Your task to perform on an android device: change the clock display to show seconds Image 0: 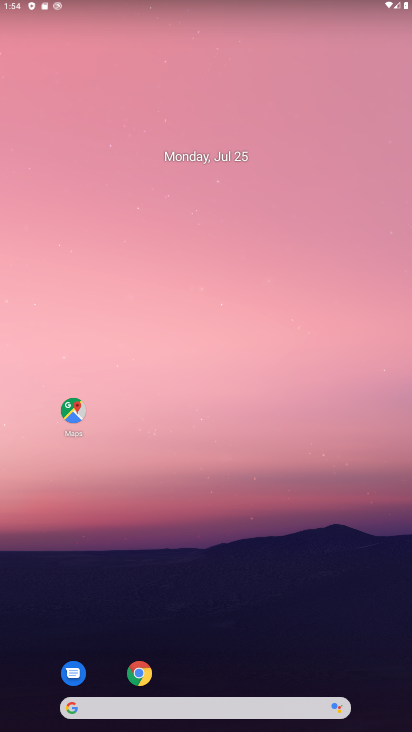
Step 0: drag from (216, 646) to (209, 37)
Your task to perform on an android device: change the clock display to show seconds Image 1: 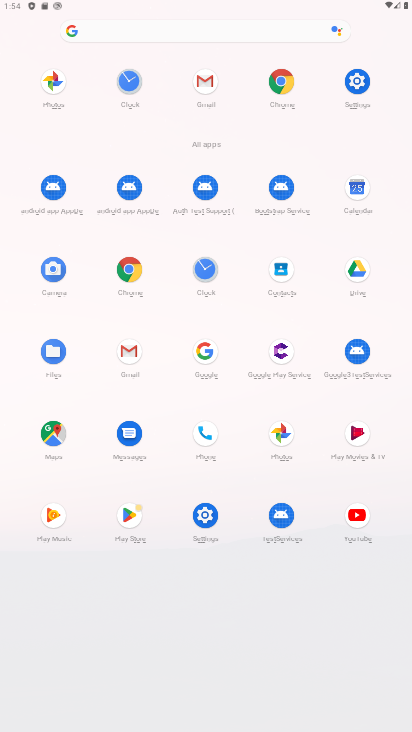
Step 1: click (126, 86)
Your task to perform on an android device: change the clock display to show seconds Image 2: 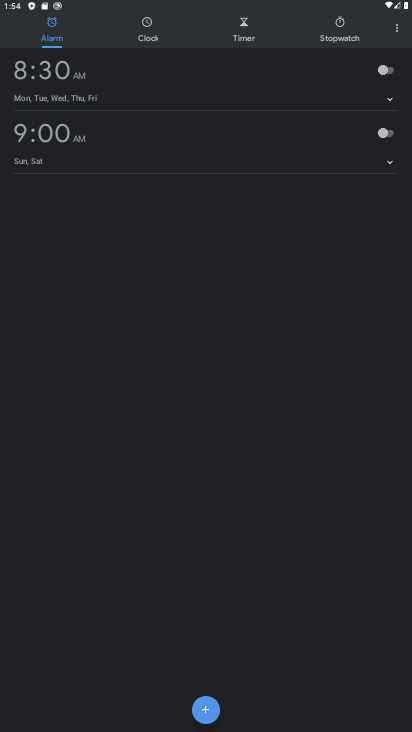
Step 2: click (402, 38)
Your task to perform on an android device: change the clock display to show seconds Image 3: 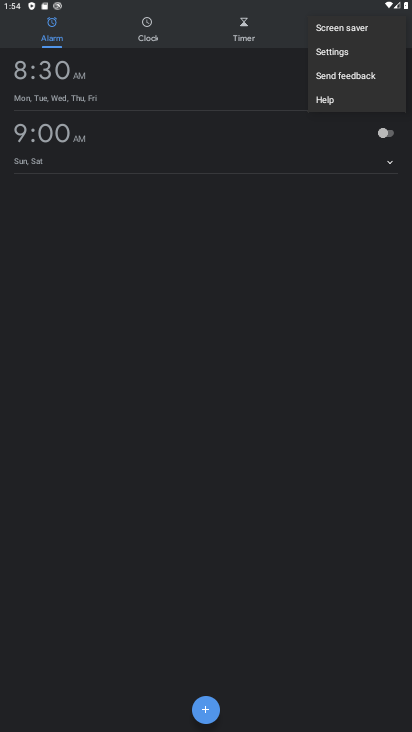
Step 3: click (351, 57)
Your task to perform on an android device: change the clock display to show seconds Image 4: 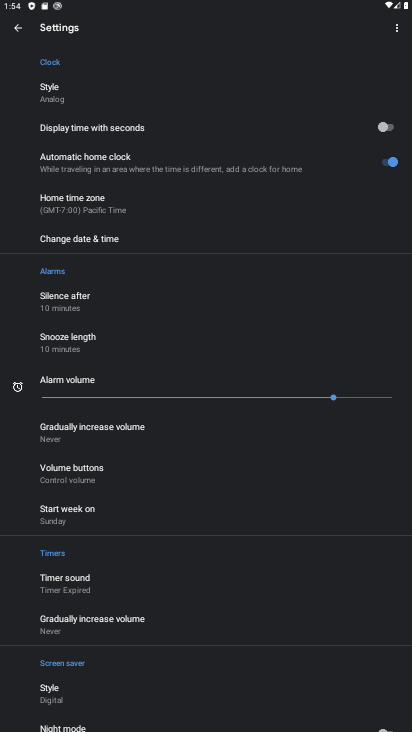
Step 4: click (394, 124)
Your task to perform on an android device: change the clock display to show seconds Image 5: 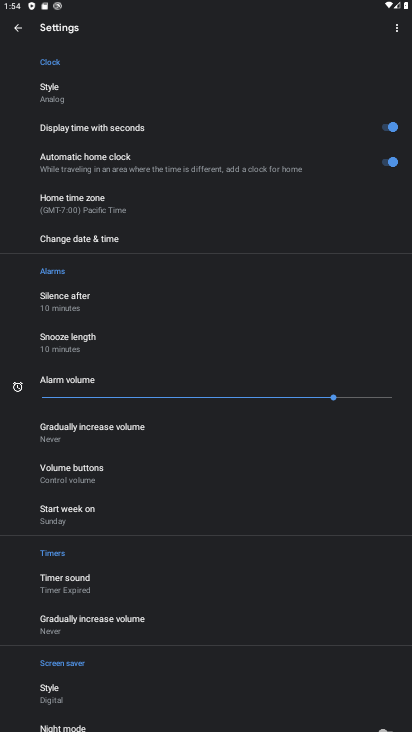
Step 5: task complete